Your task to perform on an android device: Search for seafood restaurants on Google Maps Image 0: 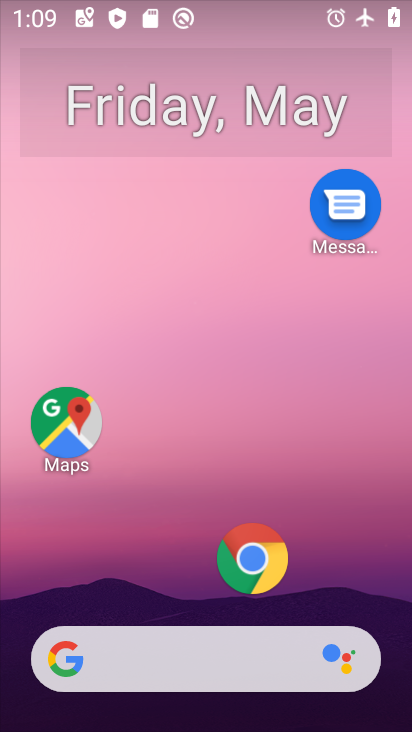
Step 0: drag from (102, 619) to (133, 281)
Your task to perform on an android device: Search for seafood restaurants on Google Maps Image 1: 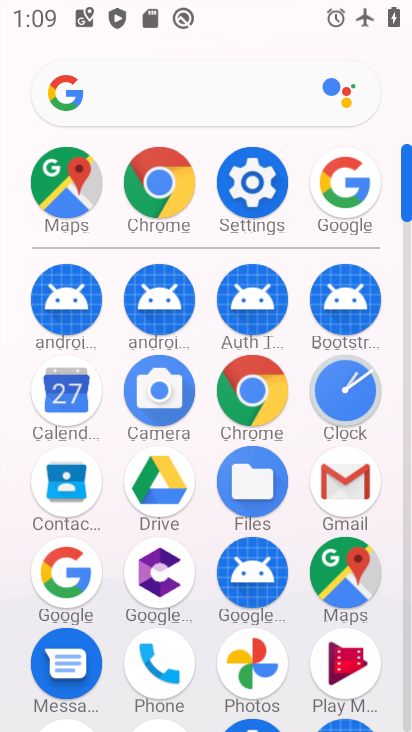
Step 1: click (354, 570)
Your task to perform on an android device: Search for seafood restaurants on Google Maps Image 2: 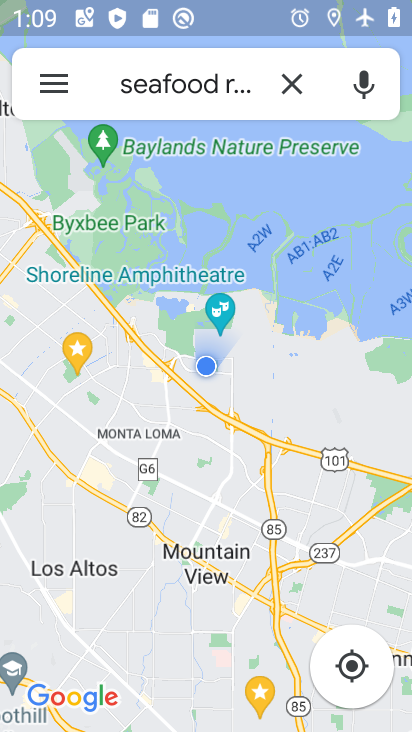
Step 2: click (178, 86)
Your task to perform on an android device: Search for seafood restaurants on Google Maps Image 3: 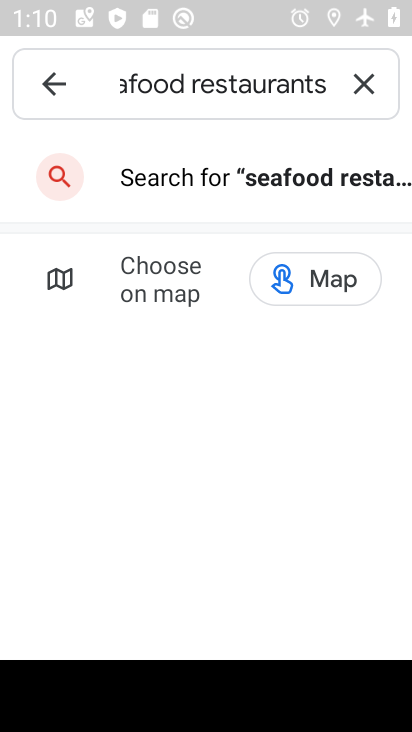
Step 3: task complete